Your task to perform on an android device: What is the recent news? Image 0: 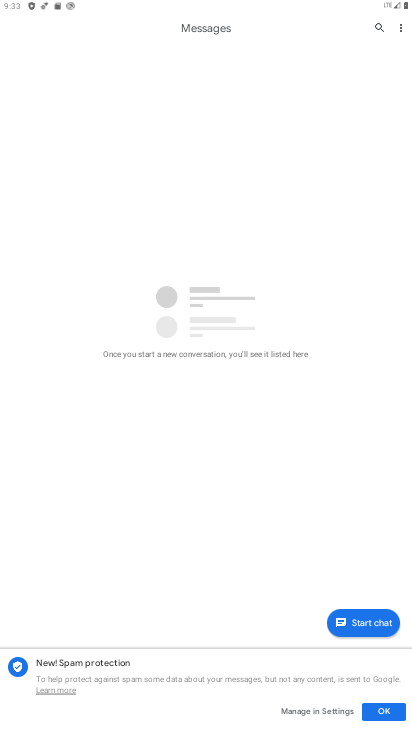
Step 0: press home button
Your task to perform on an android device: What is the recent news? Image 1: 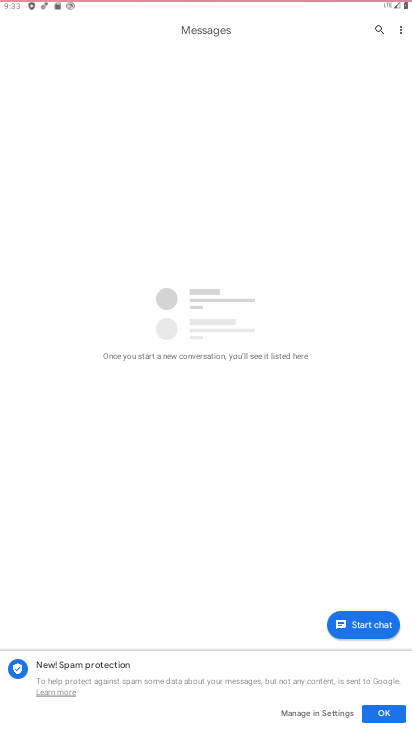
Step 1: drag from (160, 570) to (190, 311)
Your task to perform on an android device: What is the recent news? Image 2: 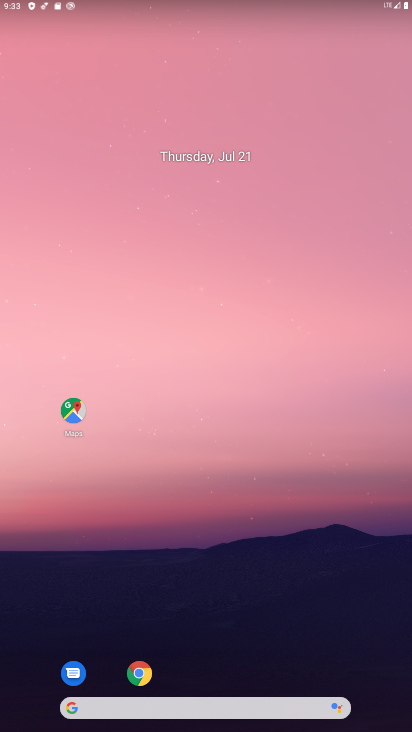
Step 2: drag from (178, 666) to (253, 149)
Your task to perform on an android device: What is the recent news? Image 3: 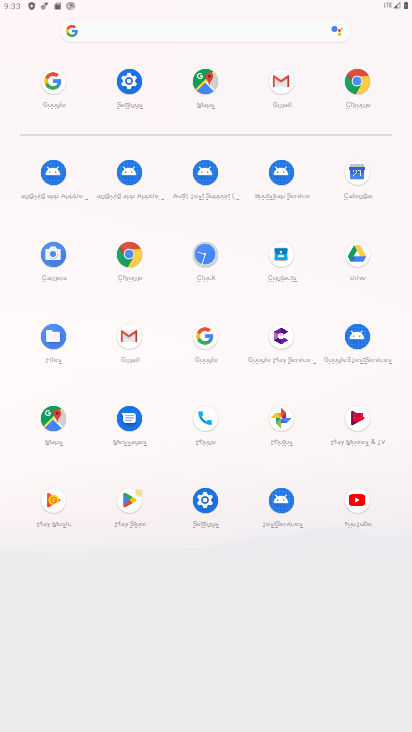
Step 3: click (157, 29)
Your task to perform on an android device: What is the recent news? Image 4: 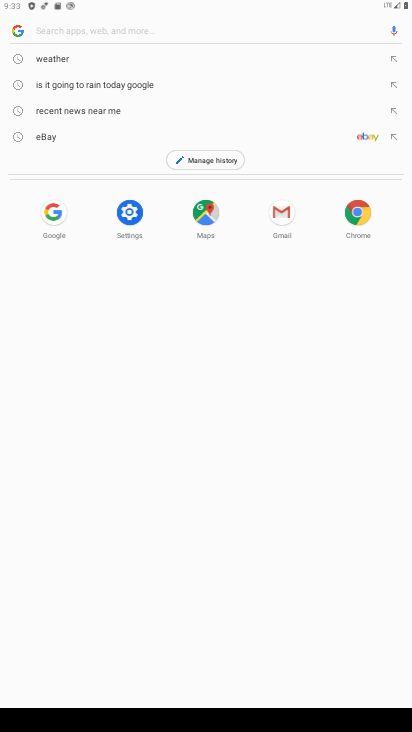
Step 4: type "What is the recent news?"
Your task to perform on an android device: What is the recent news? Image 5: 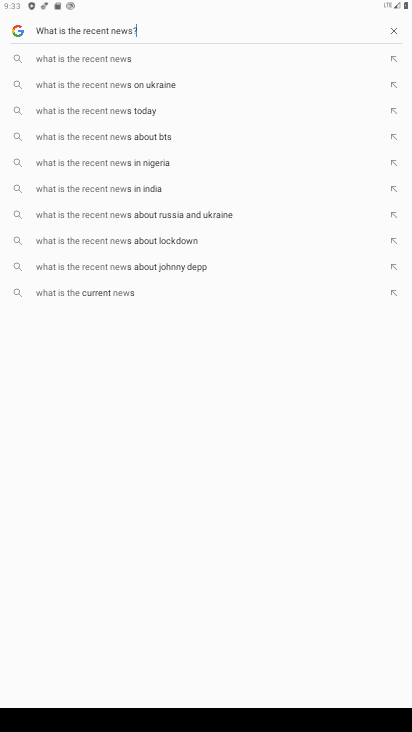
Step 5: type ""
Your task to perform on an android device: What is the recent news? Image 6: 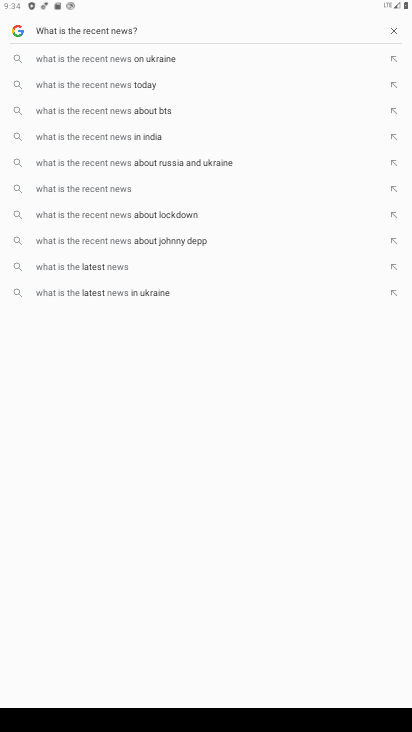
Step 6: click (135, 76)
Your task to perform on an android device: What is the recent news? Image 7: 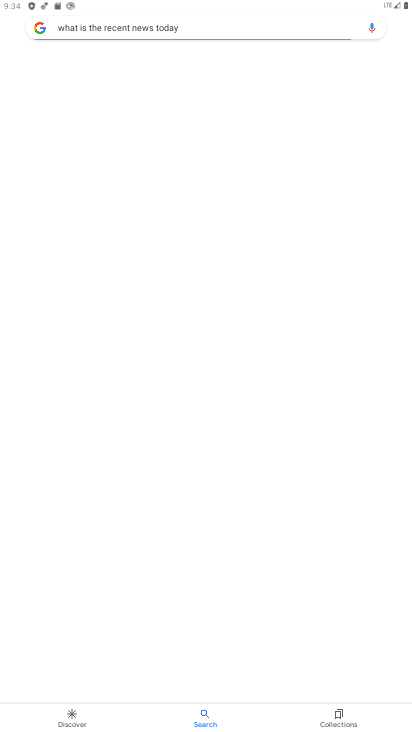
Step 7: task complete